Your task to perform on an android device: change notification settings in the gmail app Image 0: 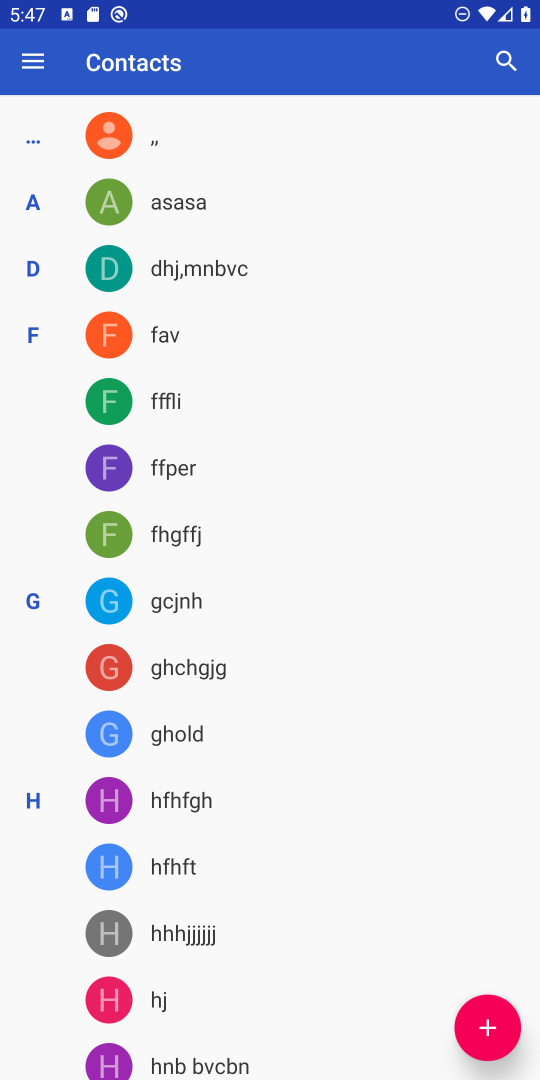
Step 0: press home button
Your task to perform on an android device: change notification settings in the gmail app Image 1: 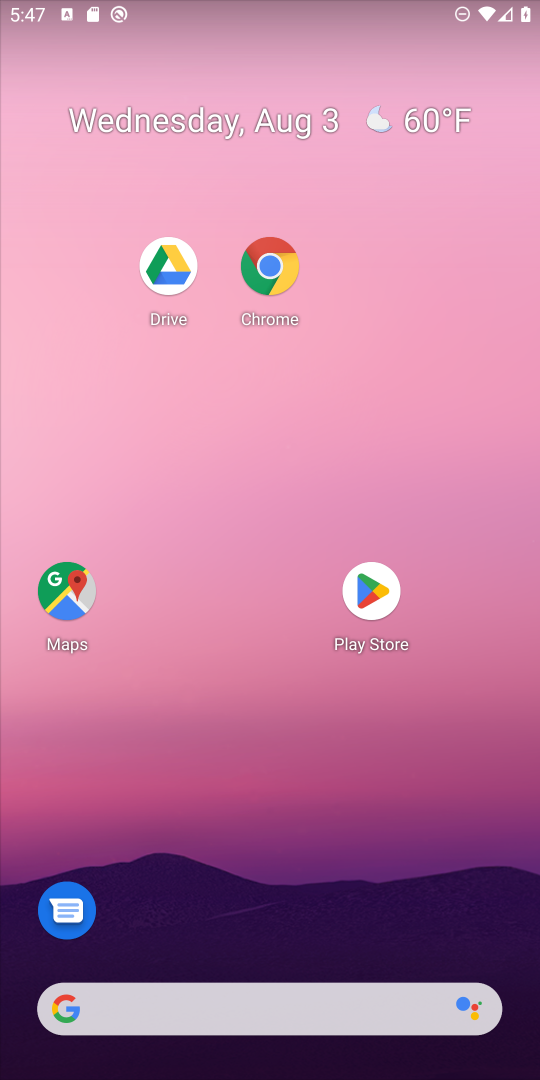
Step 1: drag from (219, 1034) to (304, 2)
Your task to perform on an android device: change notification settings in the gmail app Image 2: 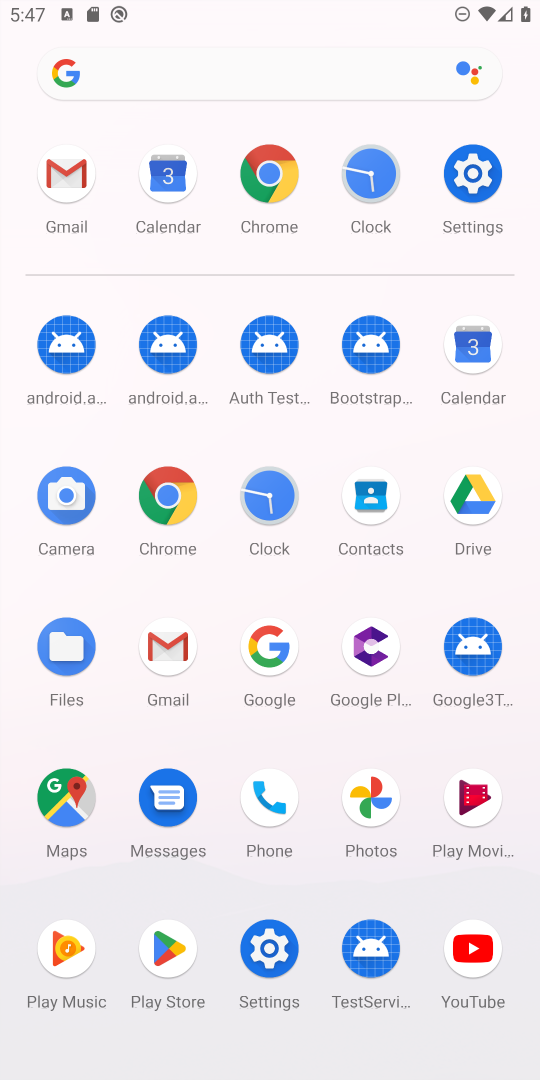
Step 2: click (172, 643)
Your task to perform on an android device: change notification settings in the gmail app Image 3: 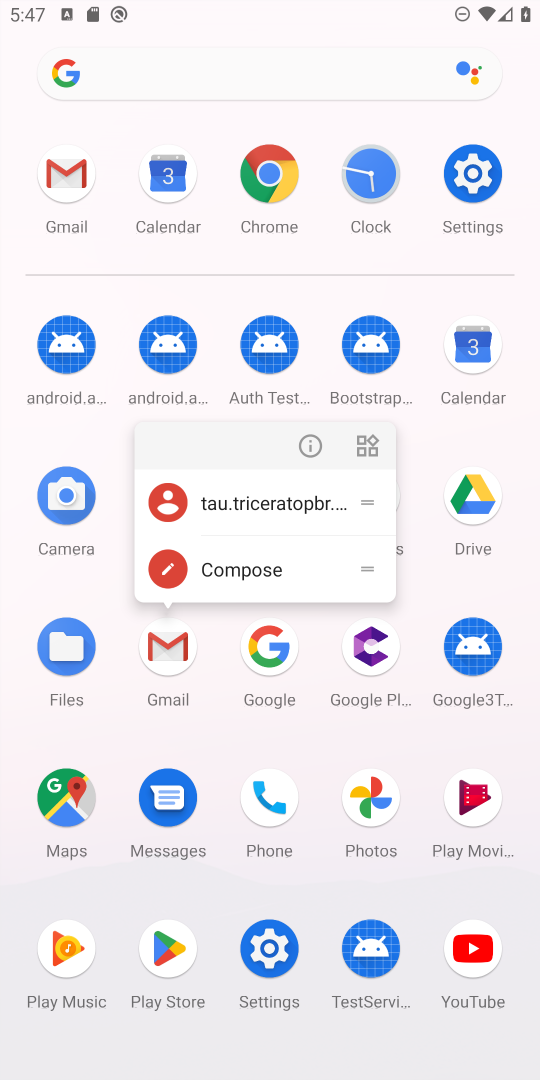
Step 3: click (160, 638)
Your task to perform on an android device: change notification settings in the gmail app Image 4: 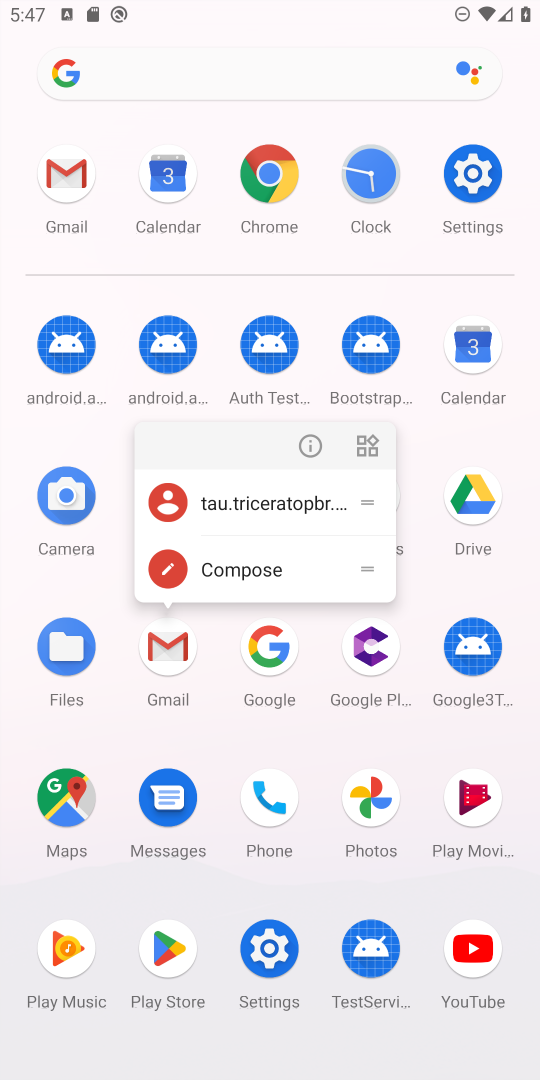
Step 4: click (160, 638)
Your task to perform on an android device: change notification settings in the gmail app Image 5: 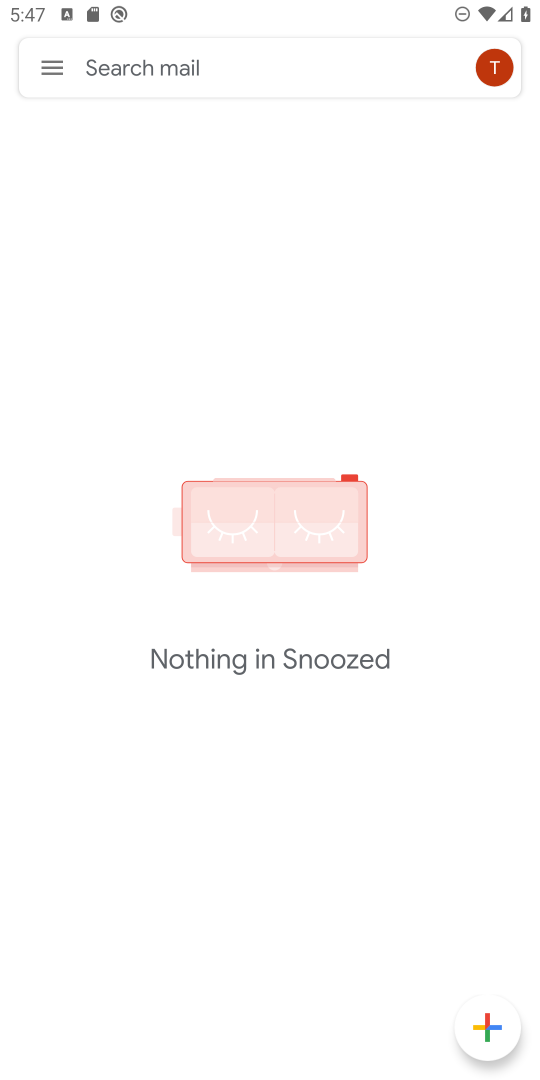
Step 5: click (49, 83)
Your task to perform on an android device: change notification settings in the gmail app Image 6: 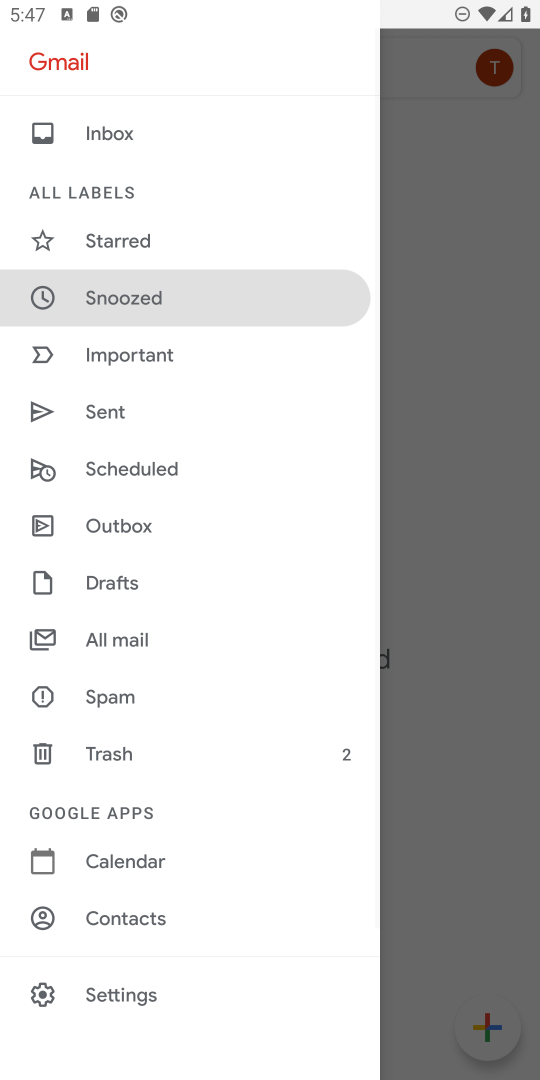
Step 6: click (119, 987)
Your task to perform on an android device: change notification settings in the gmail app Image 7: 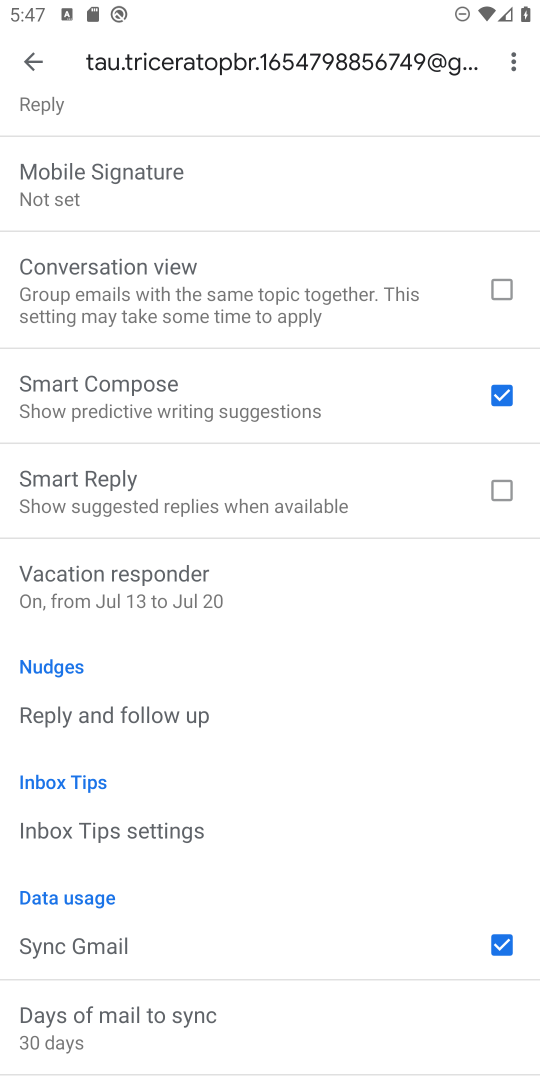
Step 7: drag from (182, 187) to (225, 900)
Your task to perform on an android device: change notification settings in the gmail app Image 8: 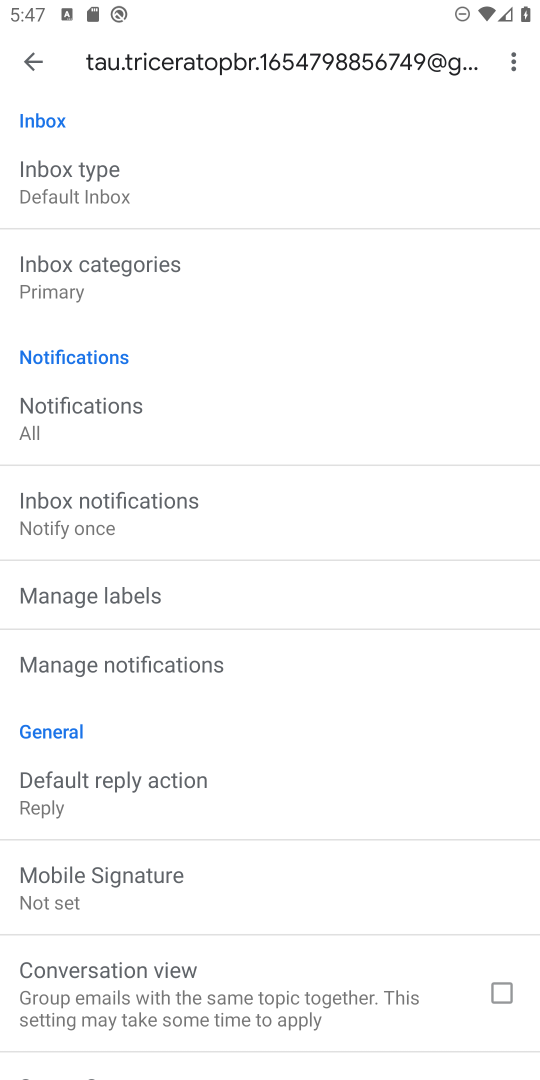
Step 8: click (162, 663)
Your task to perform on an android device: change notification settings in the gmail app Image 9: 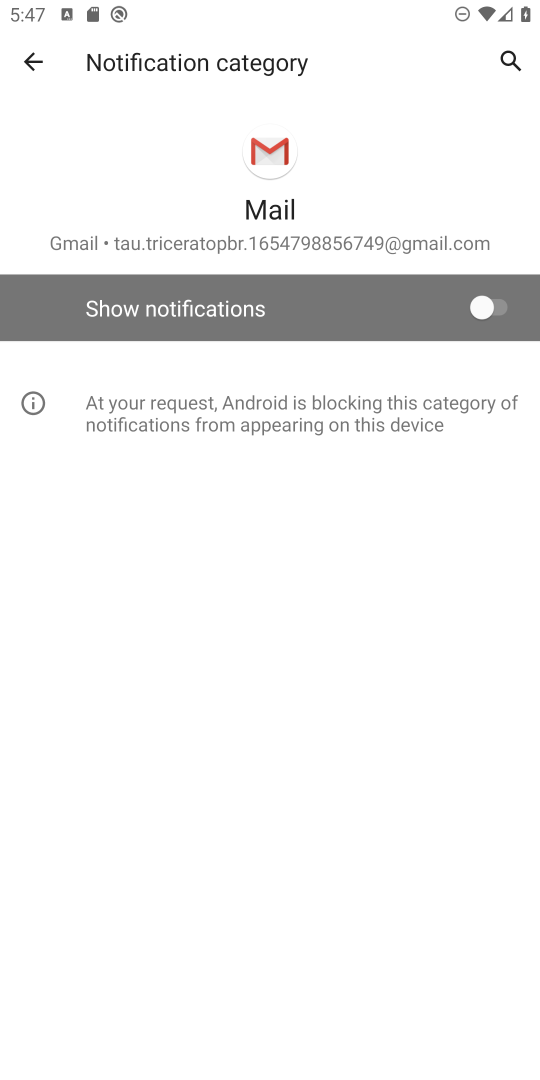
Step 9: click (495, 302)
Your task to perform on an android device: change notification settings in the gmail app Image 10: 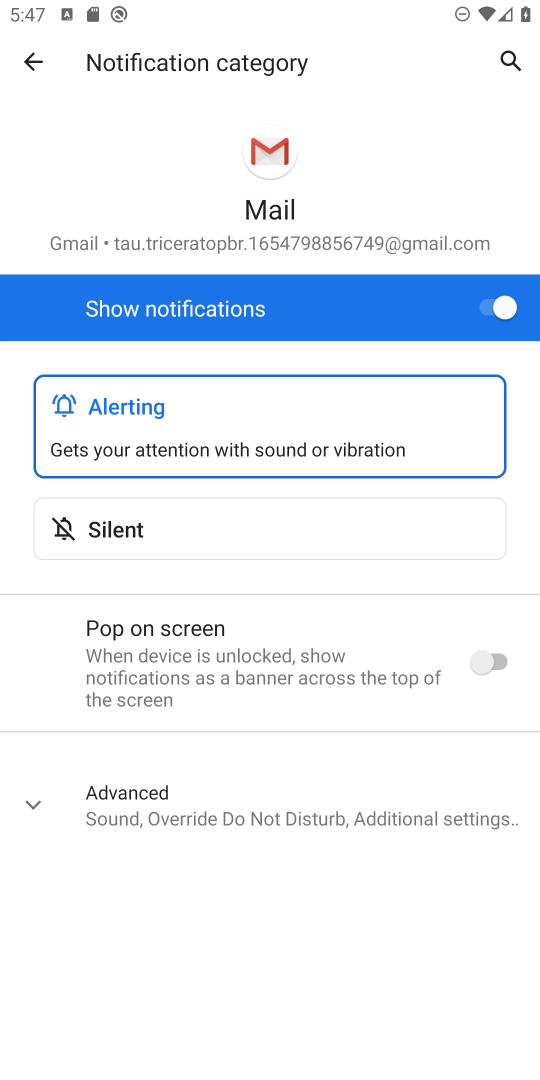
Step 10: task complete